Your task to perform on an android device: turn on notifications settings in the gmail app Image 0: 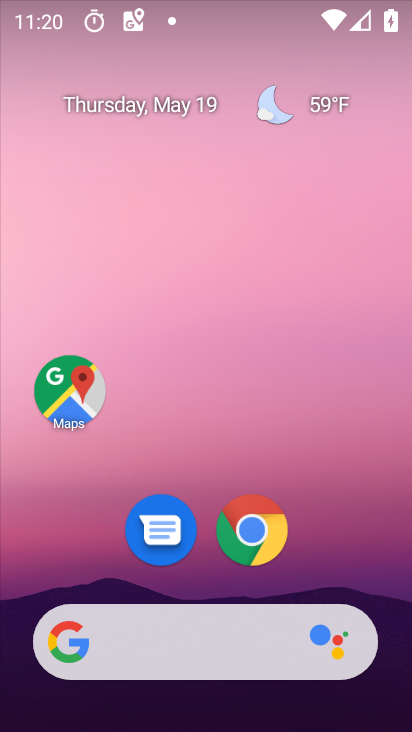
Step 0: drag from (334, 582) to (335, 79)
Your task to perform on an android device: turn on notifications settings in the gmail app Image 1: 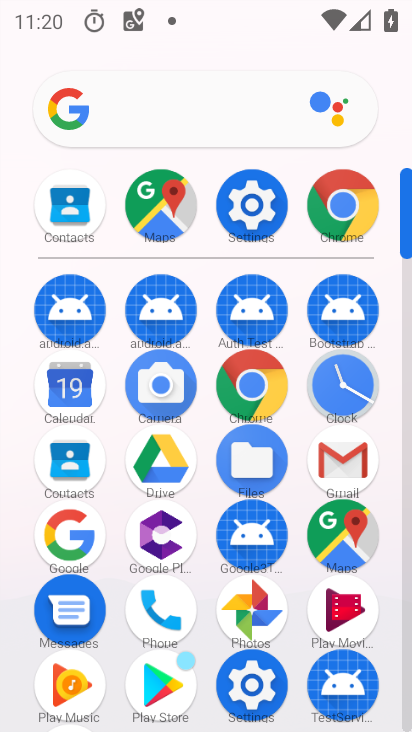
Step 1: click (327, 453)
Your task to perform on an android device: turn on notifications settings in the gmail app Image 2: 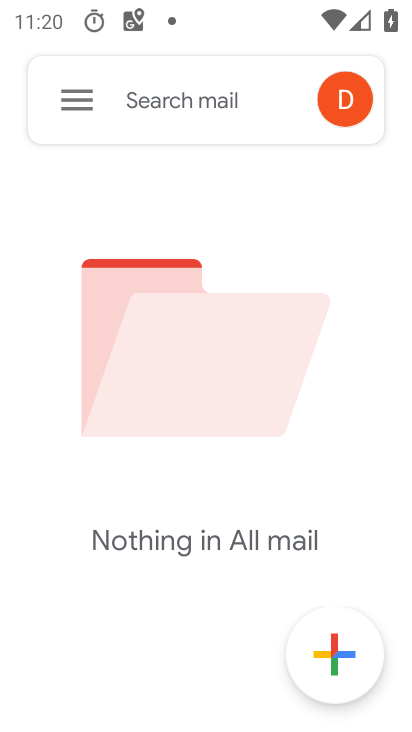
Step 2: click (65, 114)
Your task to perform on an android device: turn on notifications settings in the gmail app Image 3: 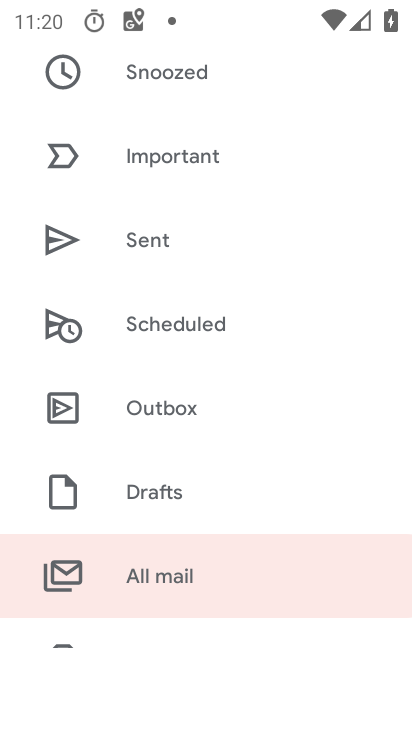
Step 3: drag from (249, 161) to (234, 522)
Your task to perform on an android device: turn on notifications settings in the gmail app Image 4: 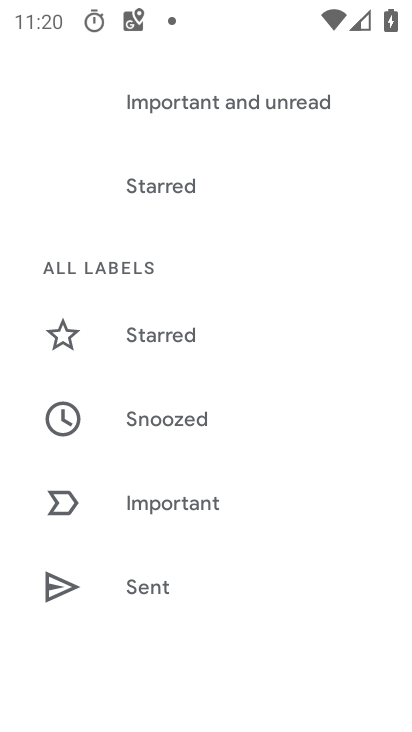
Step 4: drag from (282, 289) to (271, 617)
Your task to perform on an android device: turn on notifications settings in the gmail app Image 5: 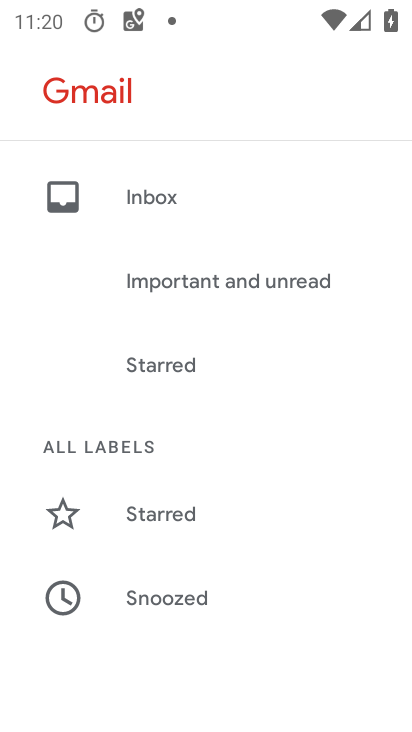
Step 5: drag from (274, 635) to (224, 102)
Your task to perform on an android device: turn on notifications settings in the gmail app Image 6: 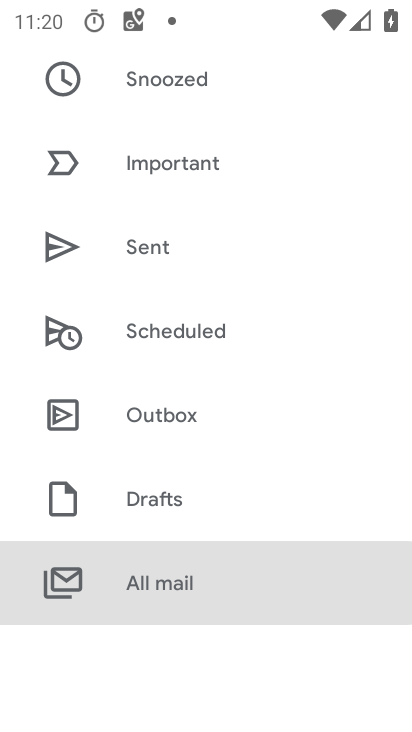
Step 6: drag from (282, 534) to (293, 109)
Your task to perform on an android device: turn on notifications settings in the gmail app Image 7: 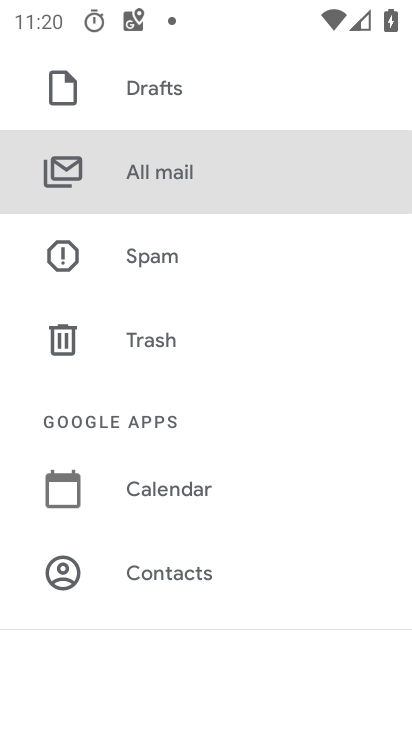
Step 7: drag from (239, 535) to (250, 242)
Your task to perform on an android device: turn on notifications settings in the gmail app Image 8: 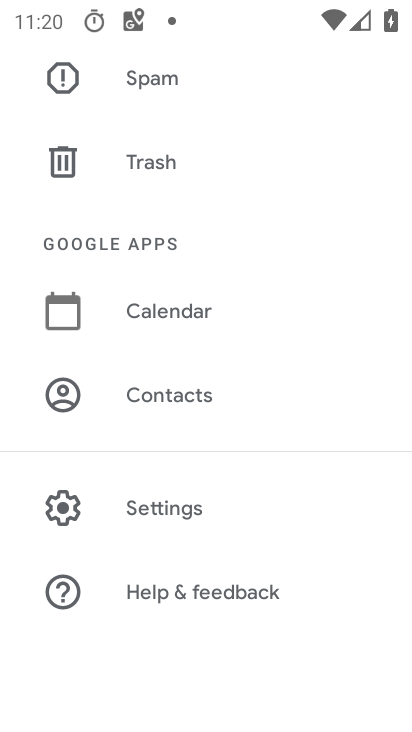
Step 8: click (225, 499)
Your task to perform on an android device: turn on notifications settings in the gmail app Image 9: 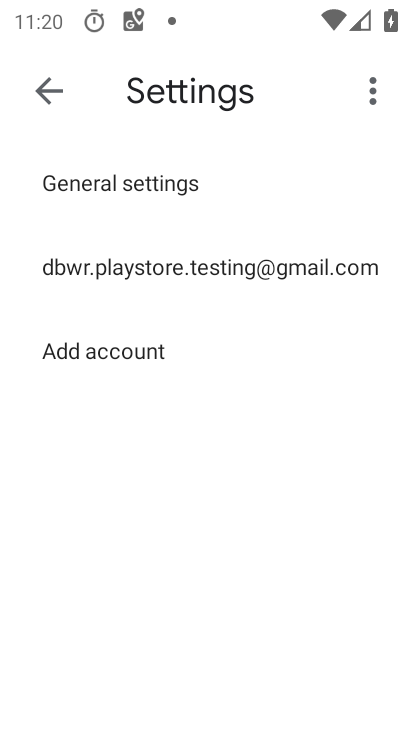
Step 9: click (207, 263)
Your task to perform on an android device: turn on notifications settings in the gmail app Image 10: 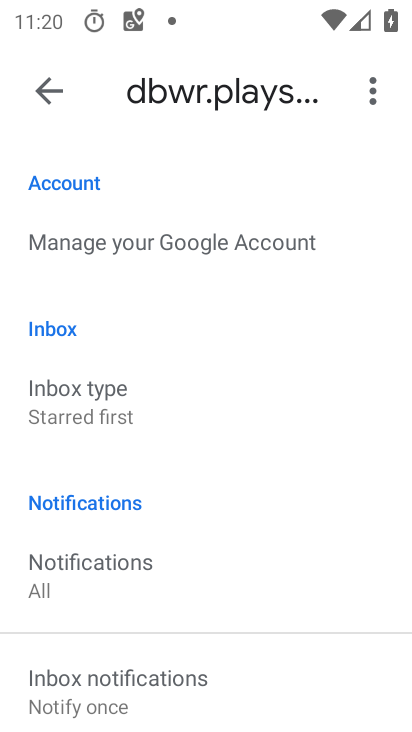
Step 10: task complete